Your task to perform on an android device: turn on wifi Image 0: 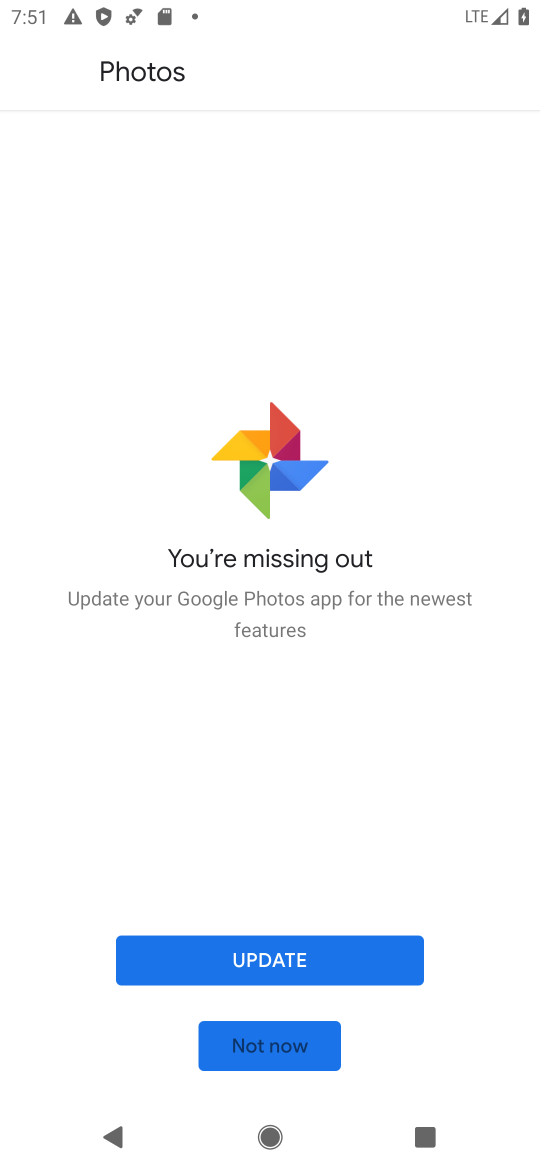
Step 0: press home button
Your task to perform on an android device: turn on wifi Image 1: 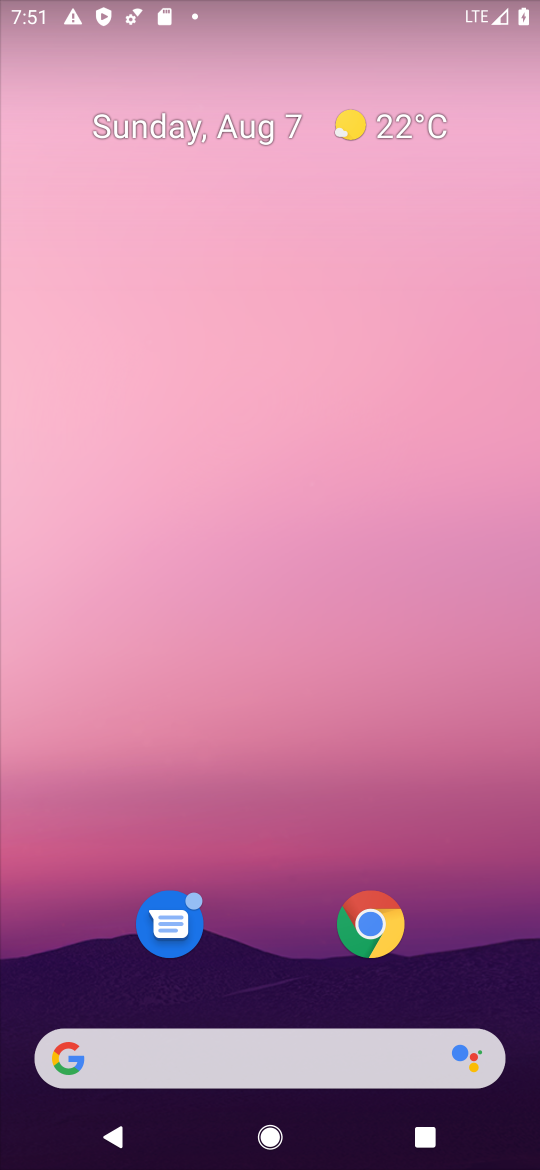
Step 1: drag from (303, 767) to (303, 0)
Your task to perform on an android device: turn on wifi Image 2: 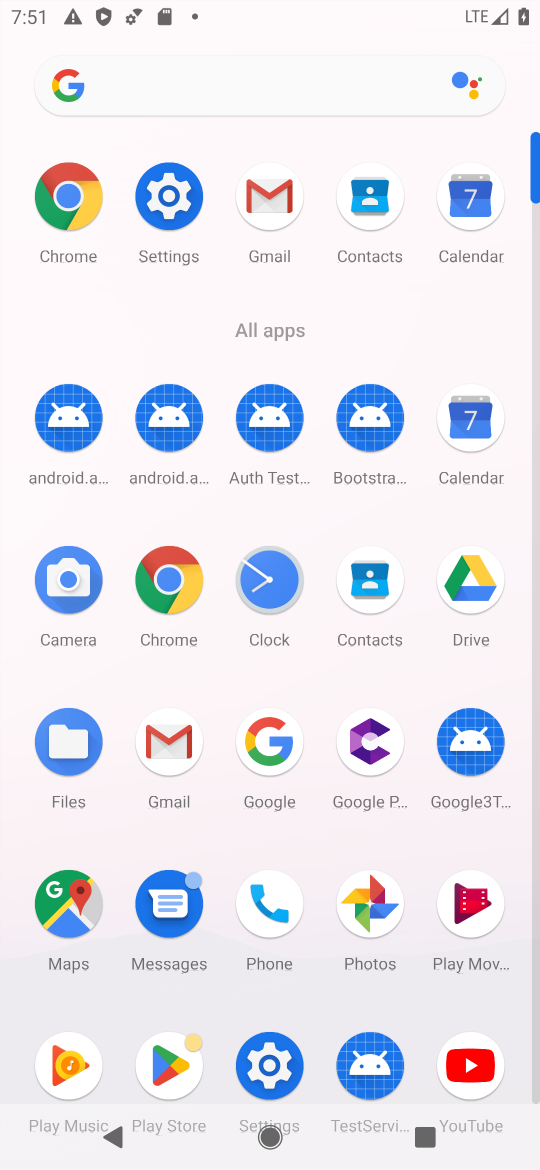
Step 2: click (178, 209)
Your task to perform on an android device: turn on wifi Image 3: 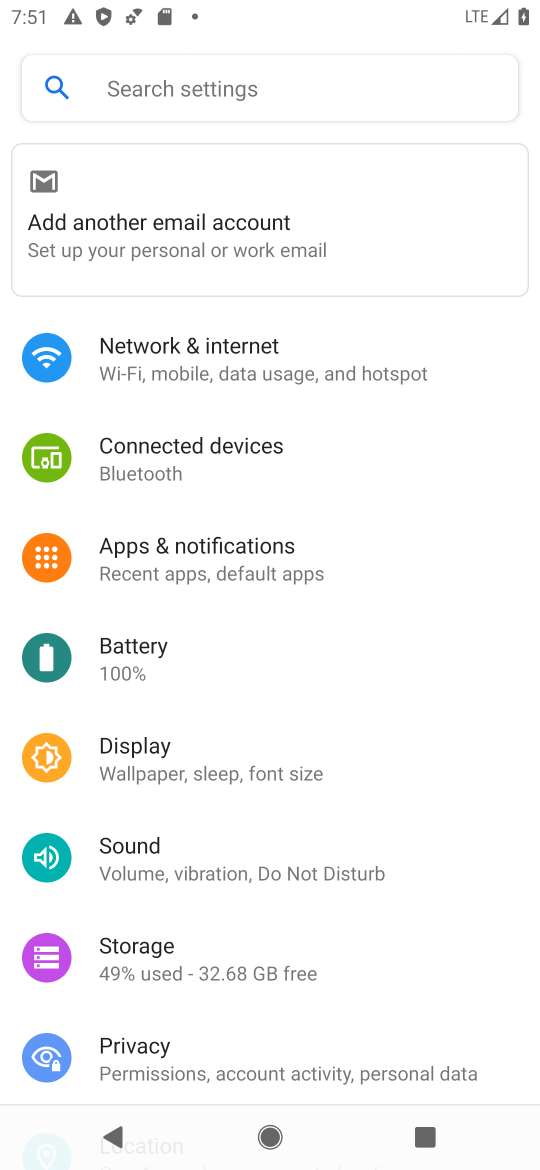
Step 3: click (200, 353)
Your task to perform on an android device: turn on wifi Image 4: 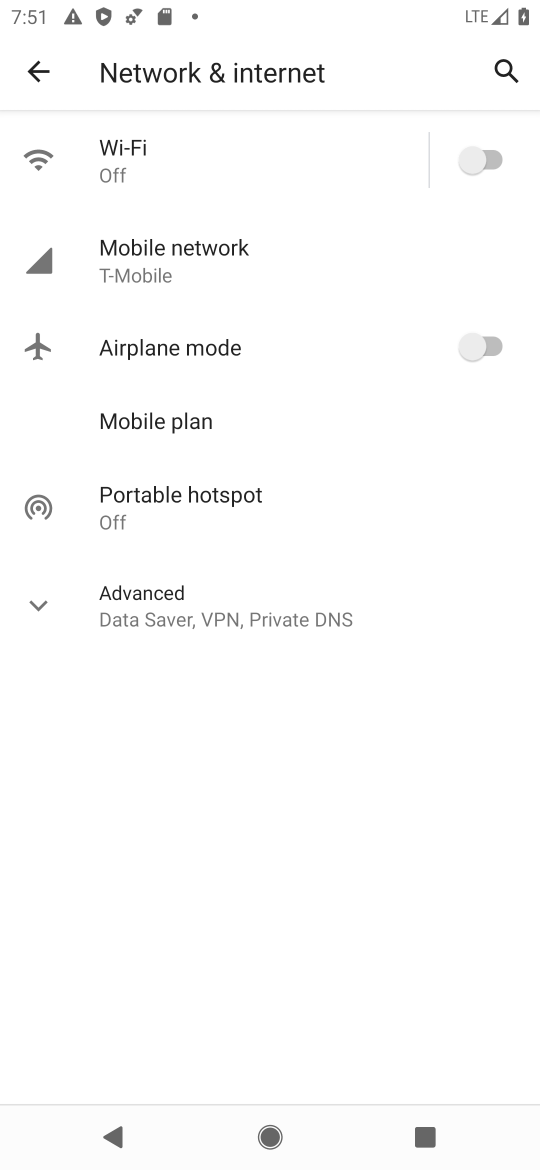
Step 4: click (470, 161)
Your task to perform on an android device: turn on wifi Image 5: 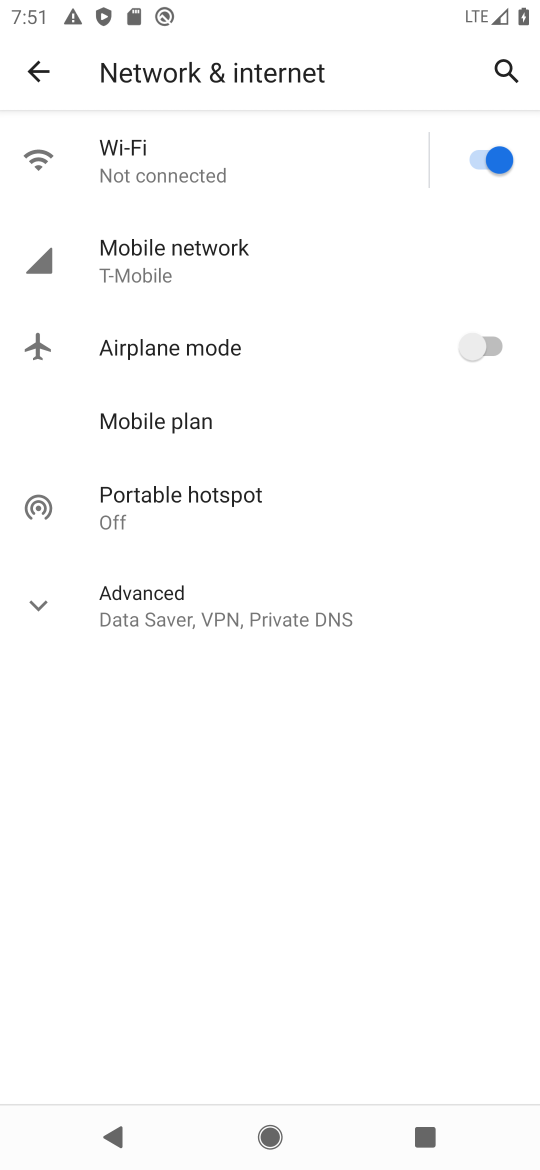
Step 5: task complete